Your task to perform on an android device: toggle translation in the chrome app Image 0: 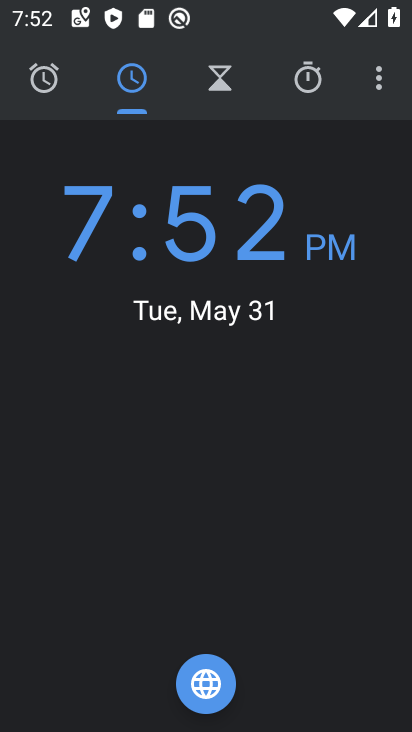
Step 0: press home button
Your task to perform on an android device: toggle translation in the chrome app Image 1: 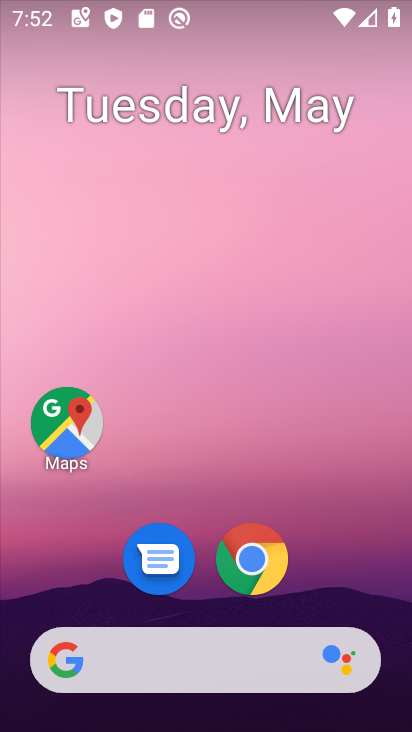
Step 1: drag from (408, 481) to (400, 160)
Your task to perform on an android device: toggle translation in the chrome app Image 2: 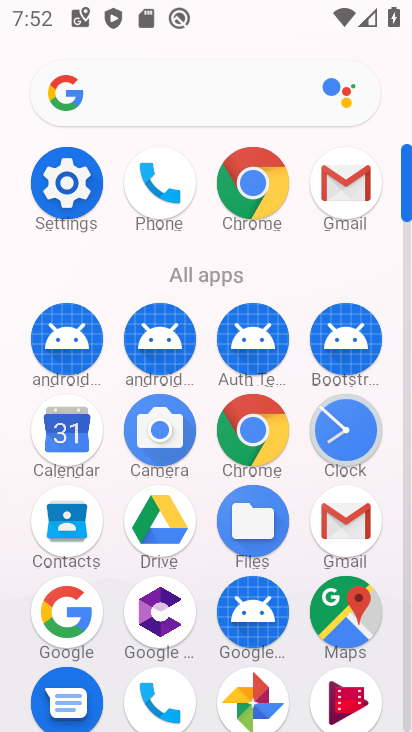
Step 2: click (263, 182)
Your task to perform on an android device: toggle translation in the chrome app Image 3: 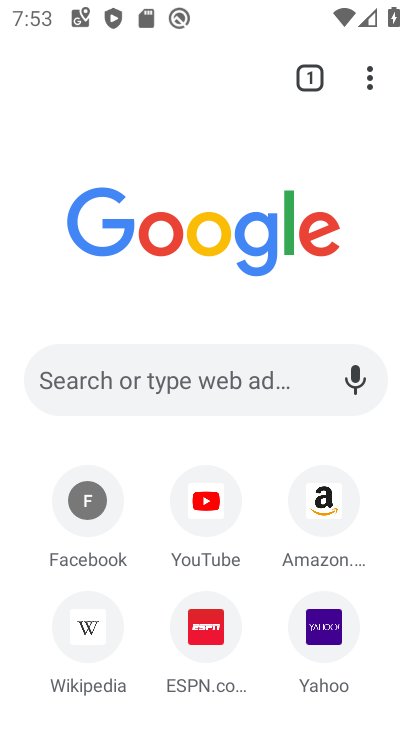
Step 3: drag from (365, 78) to (102, 642)
Your task to perform on an android device: toggle translation in the chrome app Image 4: 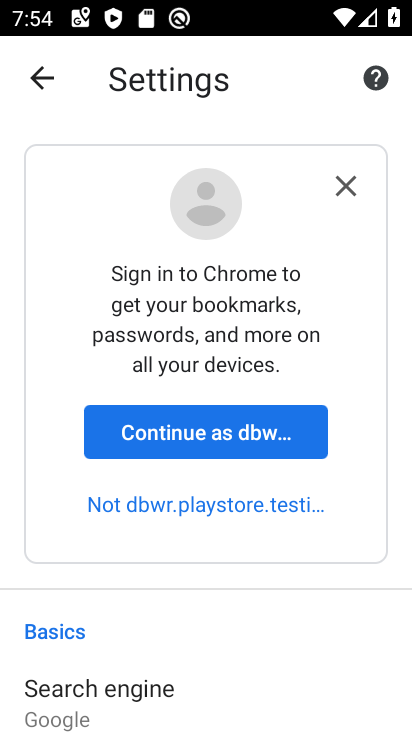
Step 4: drag from (300, 611) to (380, 220)
Your task to perform on an android device: toggle translation in the chrome app Image 5: 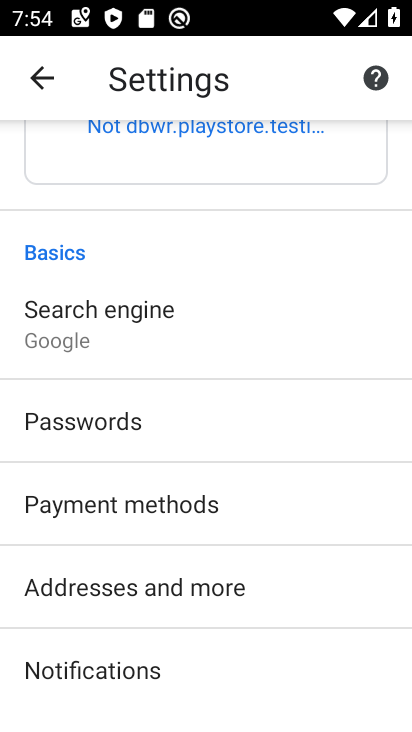
Step 5: drag from (248, 594) to (334, 167)
Your task to perform on an android device: toggle translation in the chrome app Image 6: 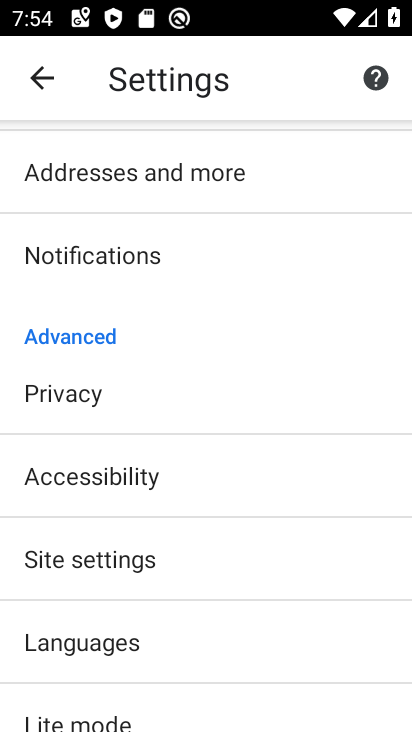
Step 6: drag from (228, 598) to (276, 285)
Your task to perform on an android device: toggle translation in the chrome app Image 7: 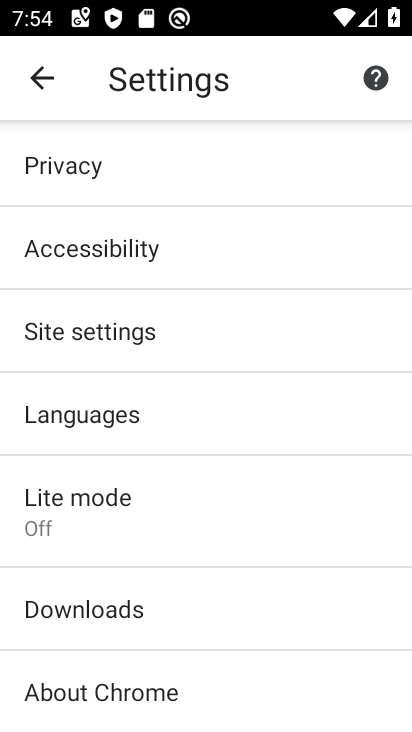
Step 7: click (171, 426)
Your task to perform on an android device: toggle translation in the chrome app Image 8: 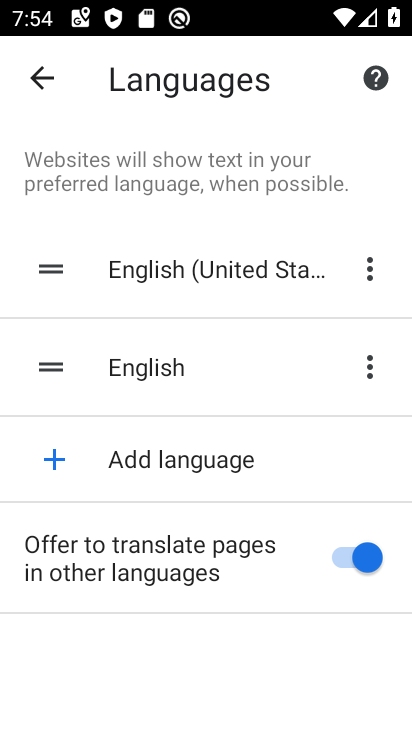
Step 8: click (341, 546)
Your task to perform on an android device: toggle translation in the chrome app Image 9: 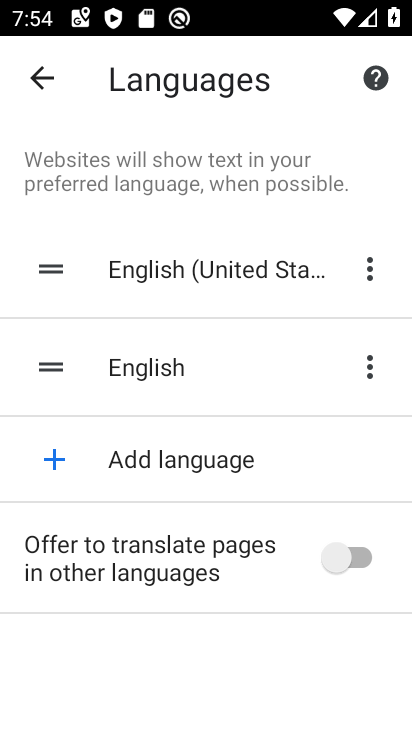
Step 9: task complete